Your task to perform on an android device: change notifications settings Image 0: 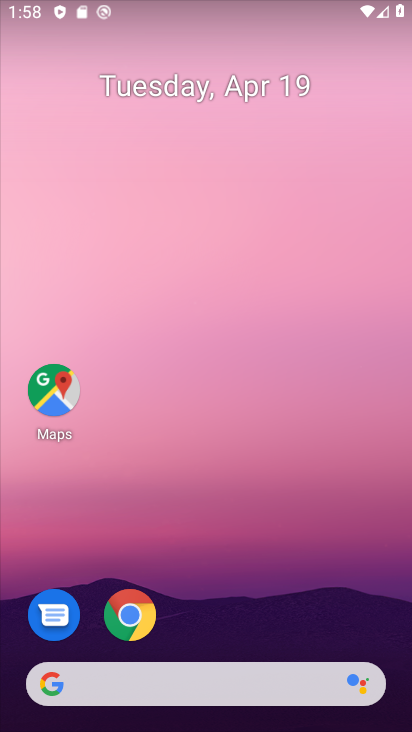
Step 0: click (239, 130)
Your task to perform on an android device: change notifications settings Image 1: 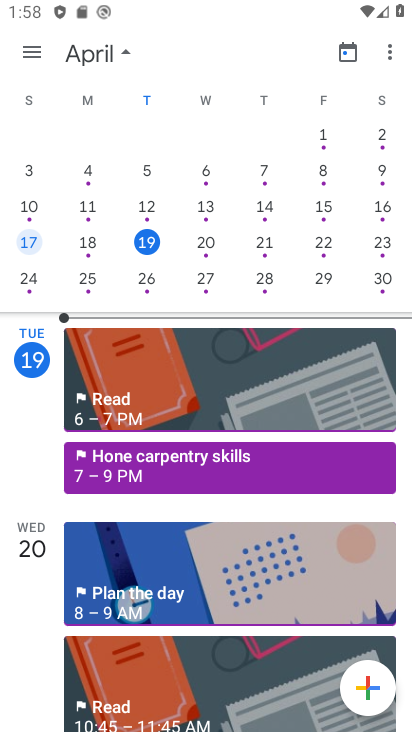
Step 1: drag from (314, 111) to (321, 61)
Your task to perform on an android device: change notifications settings Image 2: 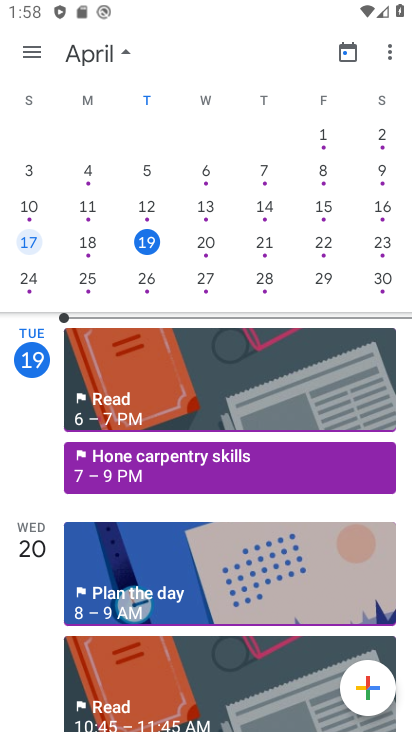
Step 2: click (289, 163)
Your task to perform on an android device: change notifications settings Image 3: 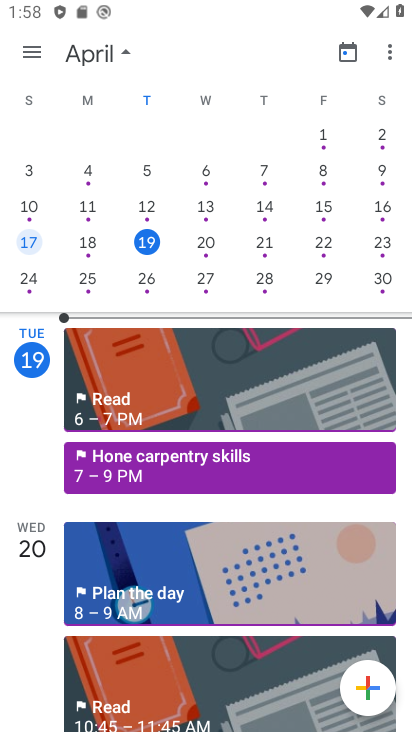
Step 3: click (288, 142)
Your task to perform on an android device: change notifications settings Image 4: 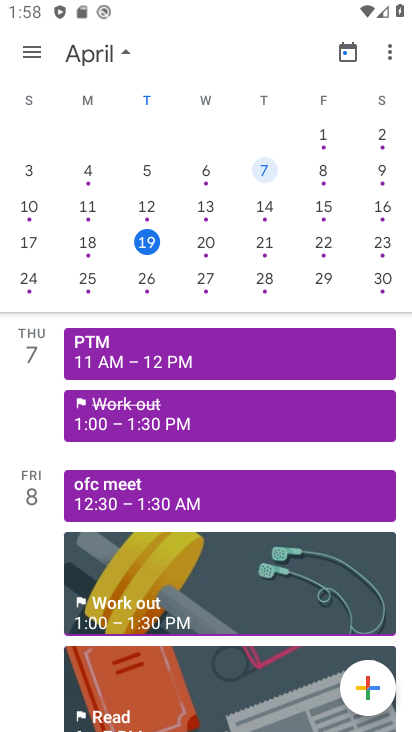
Step 4: drag from (249, 518) to (132, 86)
Your task to perform on an android device: change notifications settings Image 5: 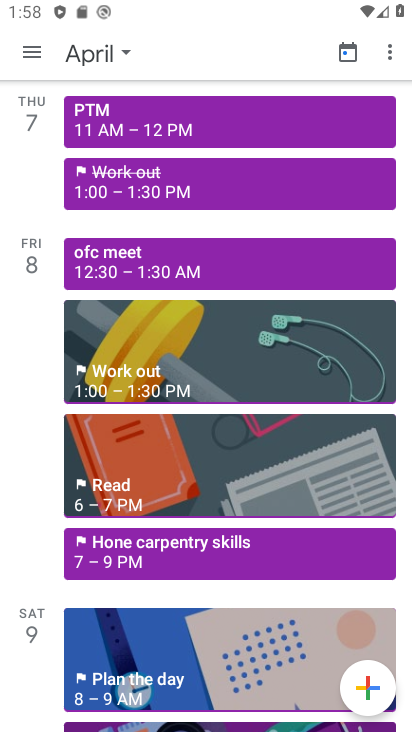
Step 5: drag from (219, 525) to (284, 119)
Your task to perform on an android device: change notifications settings Image 6: 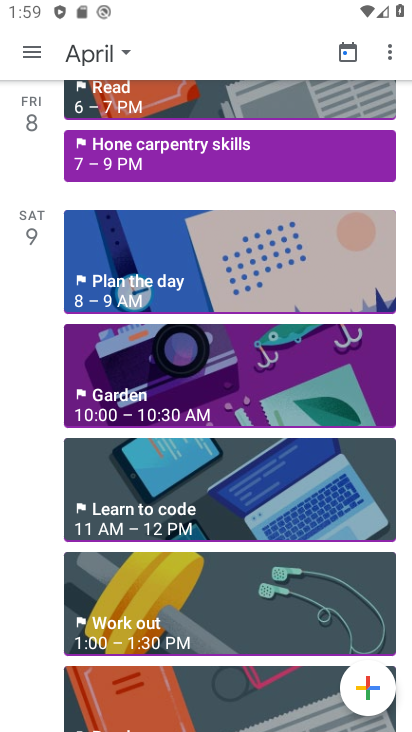
Step 6: press home button
Your task to perform on an android device: change notifications settings Image 7: 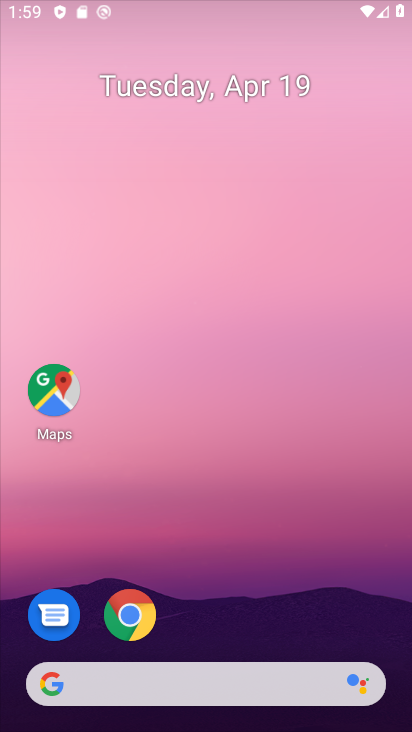
Step 7: drag from (204, 628) to (280, 145)
Your task to perform on an android device: change notifications settings Image 8: 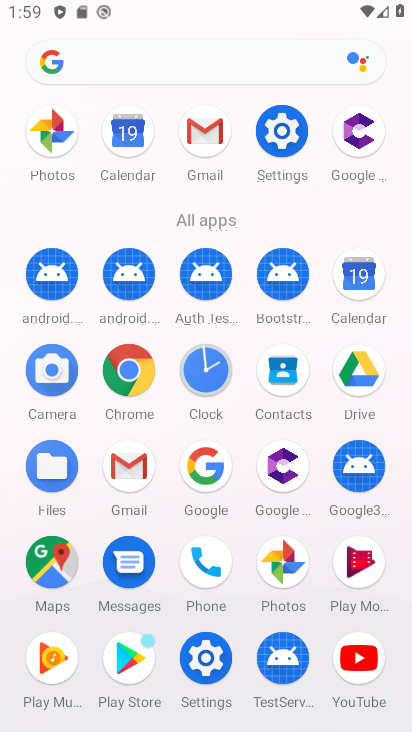
Step 8: drag from (175, 623) to (204, 222)
Your task to perform on an android device: change notifications settings Image 9: 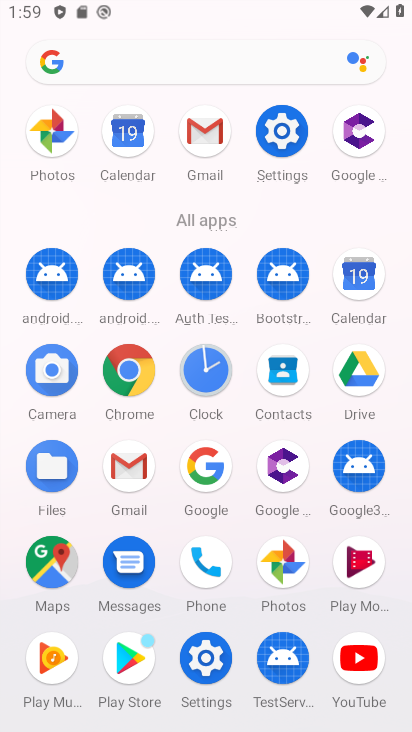
Step 9: click (200, 668)
Your task to perform on an android device: change notifications settings Image 10: 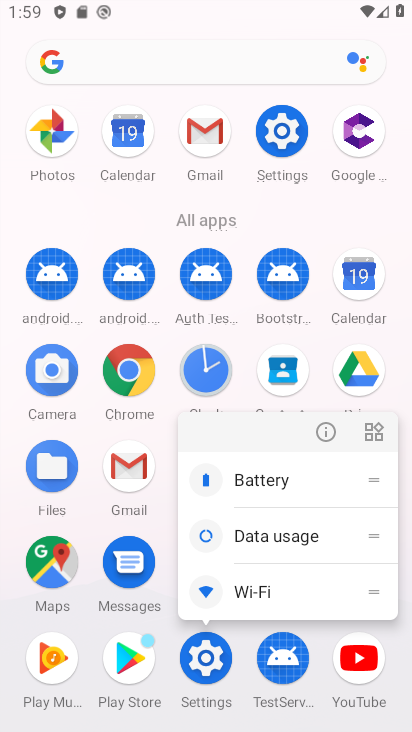
Step 10: click (324, 432)
Your task to perform on an android device: change notifications settings Image 11: 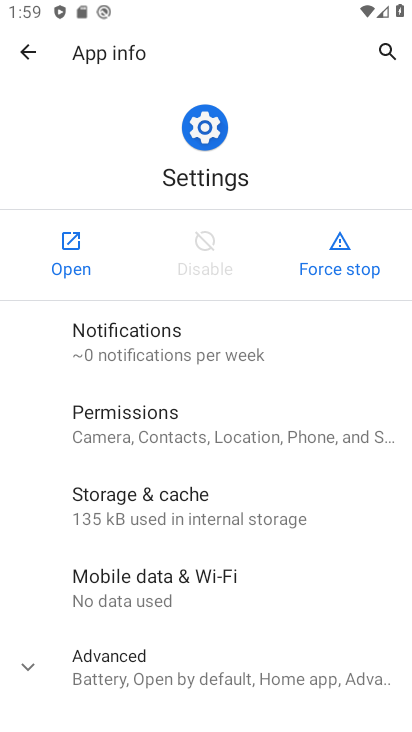
Step 11: click (62, 253)
Your task to perform on an android device: change notifications settings Image 12: 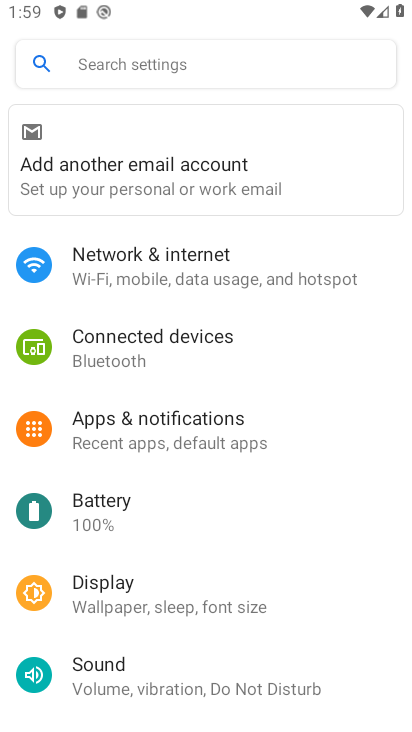
Step 12: click (150, 443)
Your task to perform on an android device: change notifications settings Image 13: 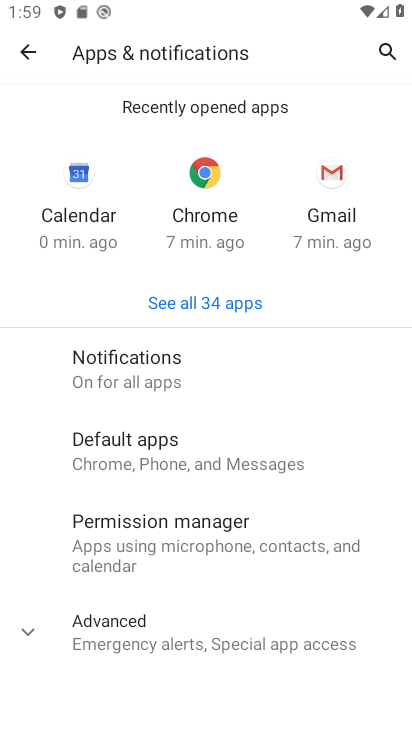
Step 13: click (216, 369)
Your task to perform on an android device: change notifications settings Image 14: 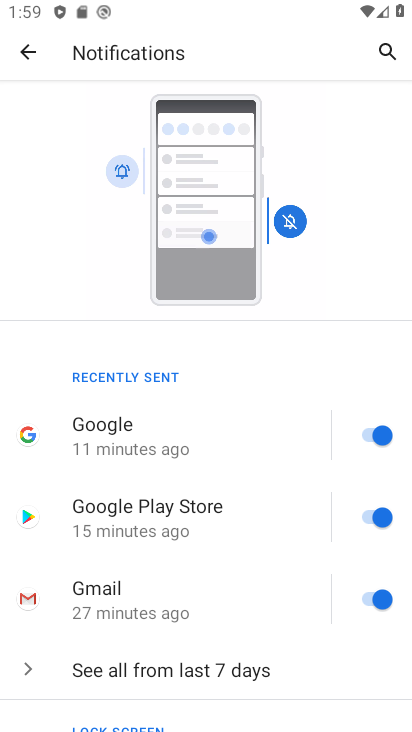
Step 14: drag from (261, 493) to (355, 153)
Your task to perform on an android device: change notifications settings Image 15: 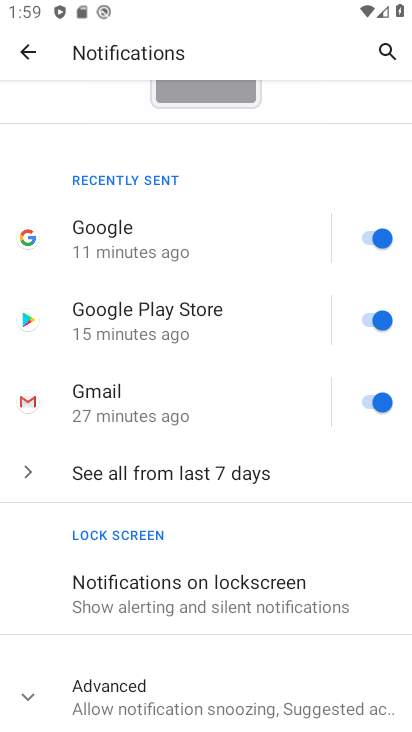
Step 15: drag from (213, 504) to (276, 278)
Your task to perform on an android device: change notifications settings Image 16: 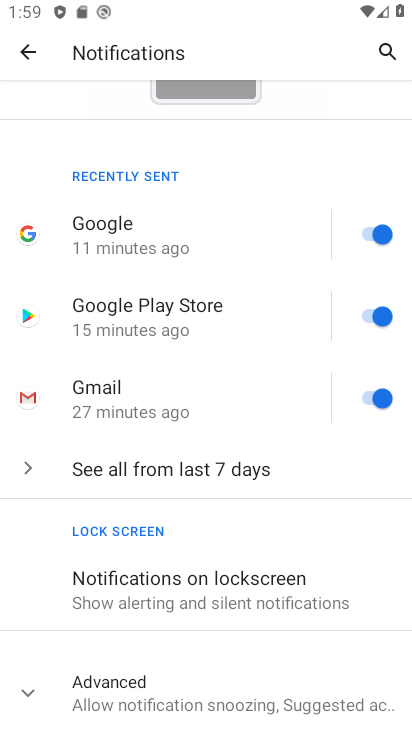
Step 16: click (135, 664)
Your task to perform on an android device: change notifications settings Image 17: 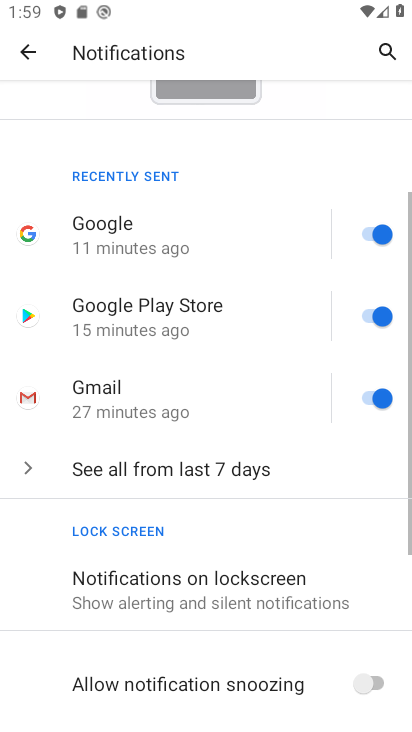
Step 17: drag from (167, 589) to (304, 72)
Your task to perform on an android device: change notifications settings Image 18: 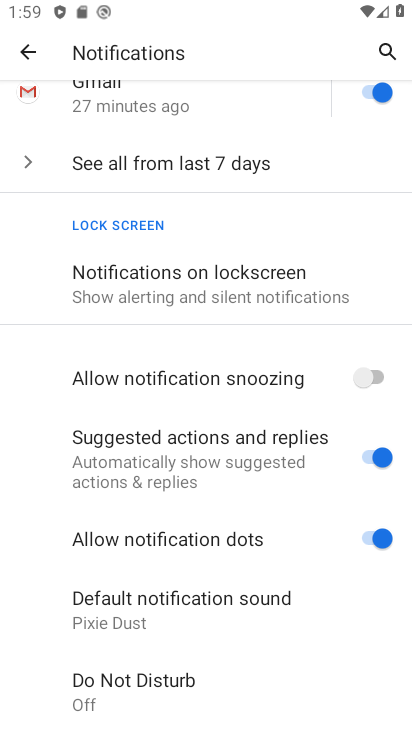
Step 18: click (361, 91)
Your task to perform on an android device: change notifications settings Image 19: 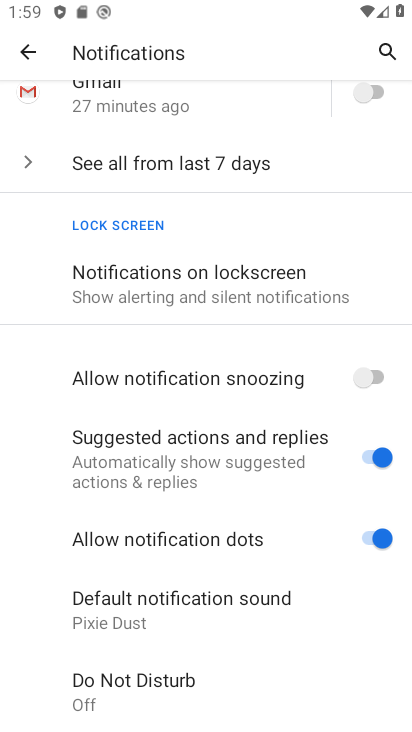
Step 19: task complete